Your task to perform on an android device: visit the assistant section in the google photos Image 0: 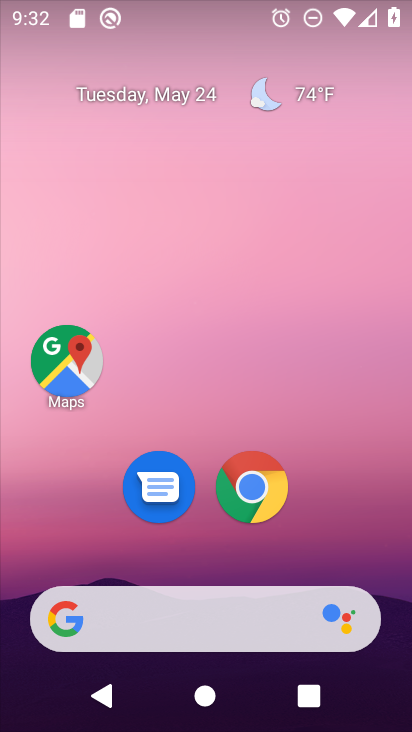
Step 0: drag from (379, 589) to (349, 1)
Your task to perform on an android device: visit the assistant section in the google photos Image 1: 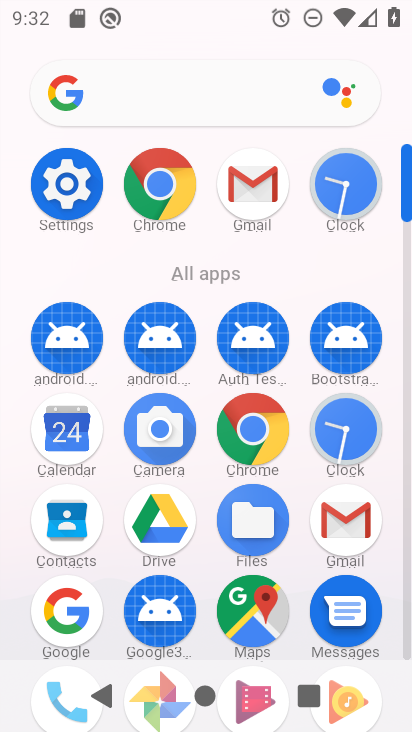
Step 1: drag from (405, 599) to (407, 487)
Your task to perform on an android device: visit the assistant section in the google photos Image 2: 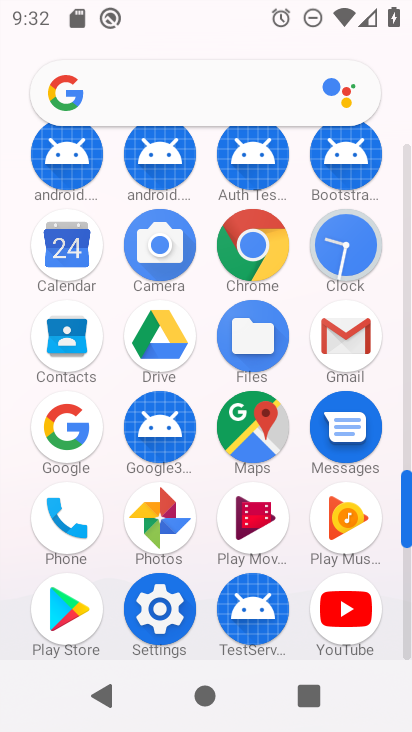
Step 2: click (160, 523)
Your task to perform on an android device: visit the assistant section in the google photos Image 3: 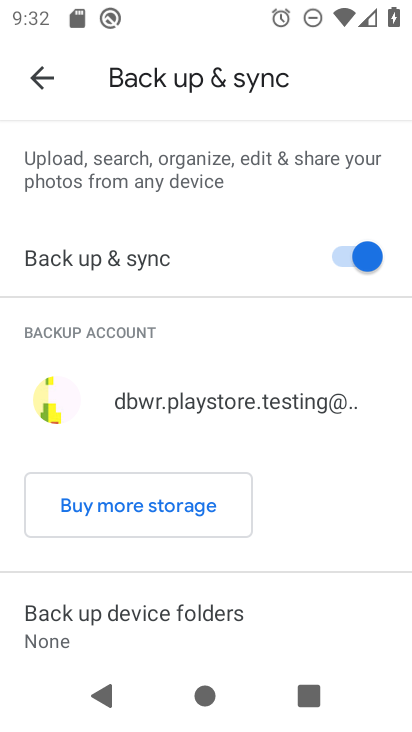
Step 3: click (36, 83)
Your task to perform on an android device: visit the assistant section in the google photos Image 4: 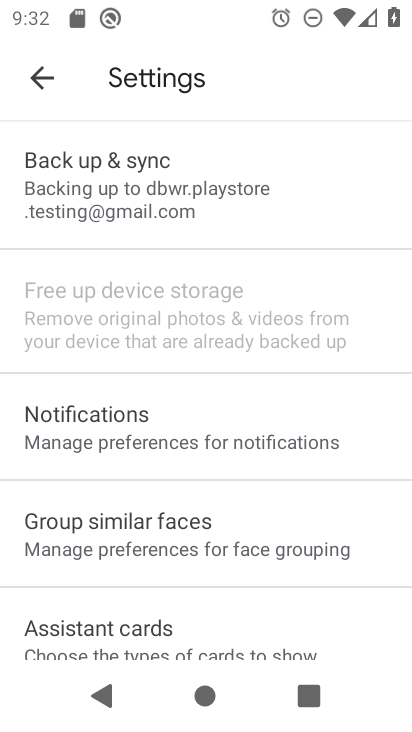
Step 4: click (40, 82)
Your task to perform on an android device: visit the assistant section in the google photos Image 5: 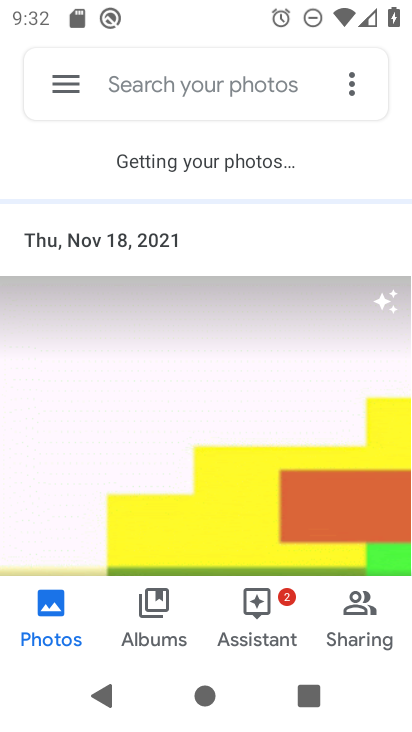
Step 5: click (265, 629)
Your task to perform on an android device: visit the assistant section in the google photos Image 6: 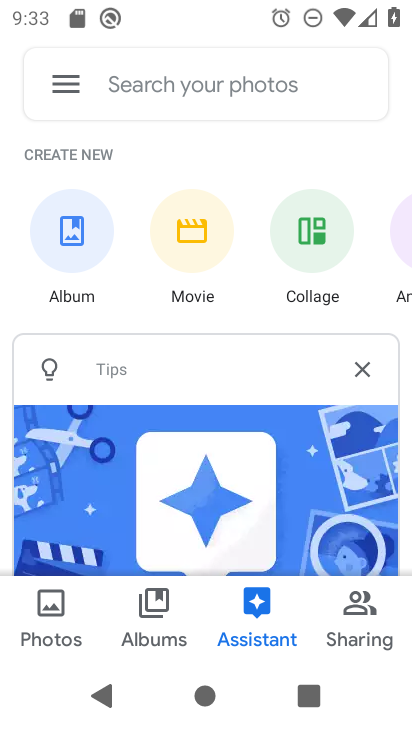
Step 6: task complete